Your task to perform on an android device: When is my next appointment? Image 0: 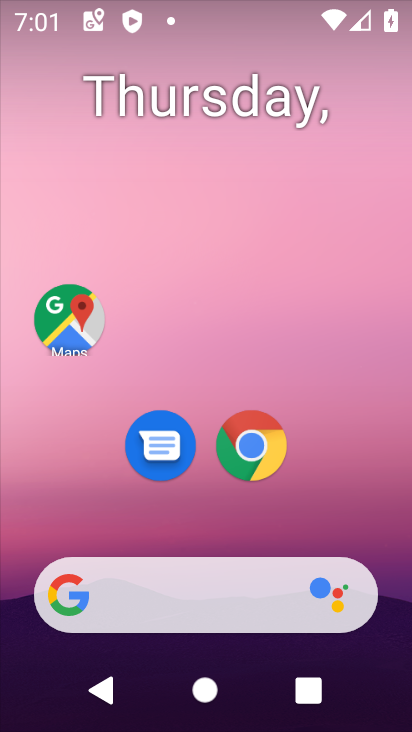
Step 0: drag from (358, 495) to (222, 97)
Your task to perform on an android device: When is my next appointment? Image 1: 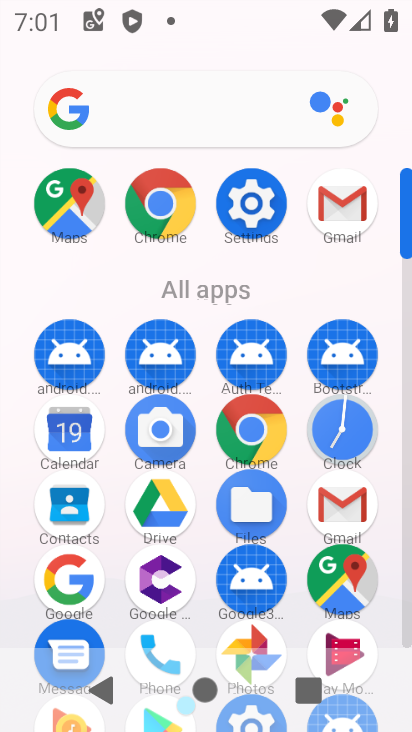
Step 1: click (68, 431)
Your task to perform on an android device: When is my next appointment? Image 2: 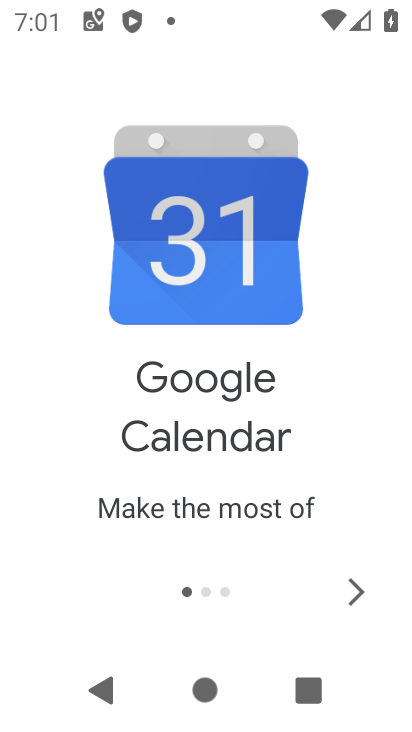
Step 2: click (354, 588)
Your task to perform on an android device: When is my next appointment? Image 3: 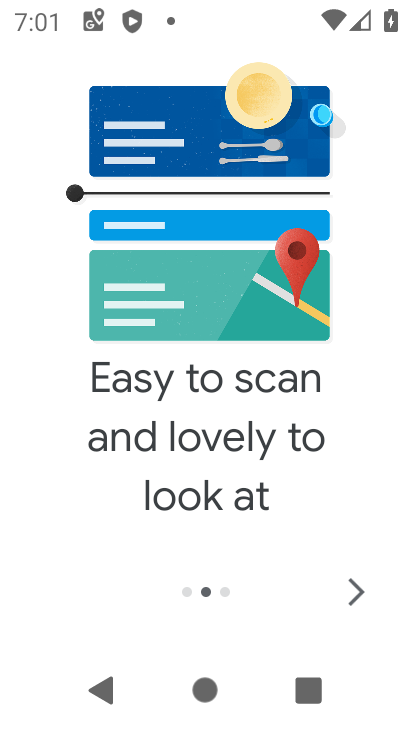
Step 3: click (355, 594)
Your task to perform on an android device: When is my next appointment? Image 4: 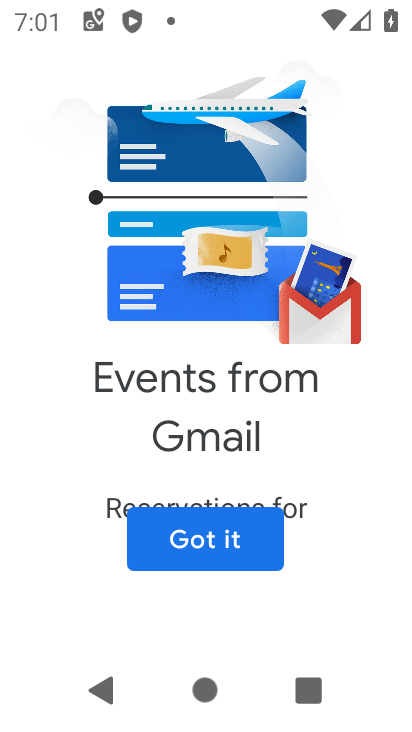
Step 4: click (211, 538)
Your task to perform on an android device: When is my next appointment? Image 5: 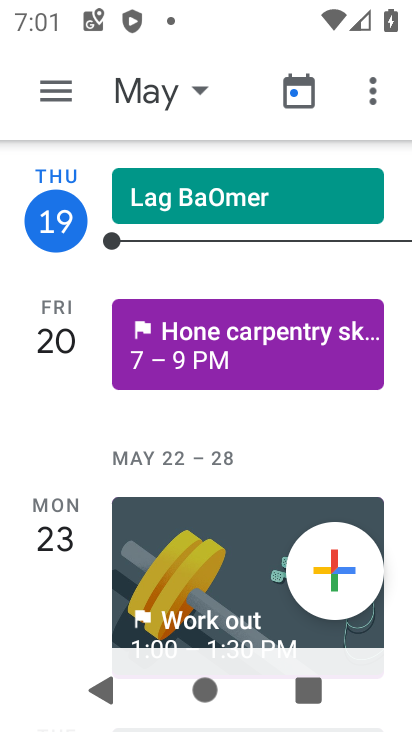
Step 5: task complete